Your task to perform on an android device: Open Youtube and go to "Your channel" Image 0: 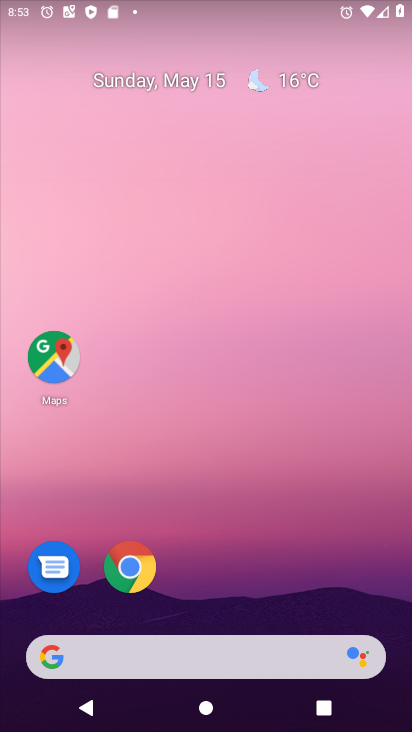
Step 0: drag from (206, 664) to (222, 363)
Your task to perform on an android device: Open Youtube and go to "Your channel" Image 1: 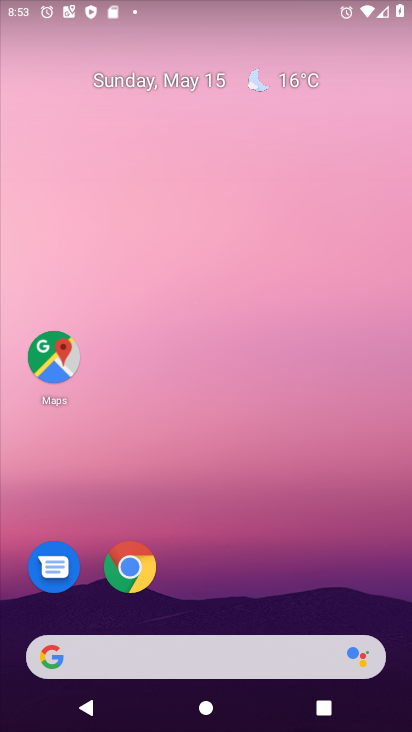
Step 1: drag from (277, 479) to (320, 272)
Your task to perform on an android device: Open Youtube and go to "Your channel" Image 2: 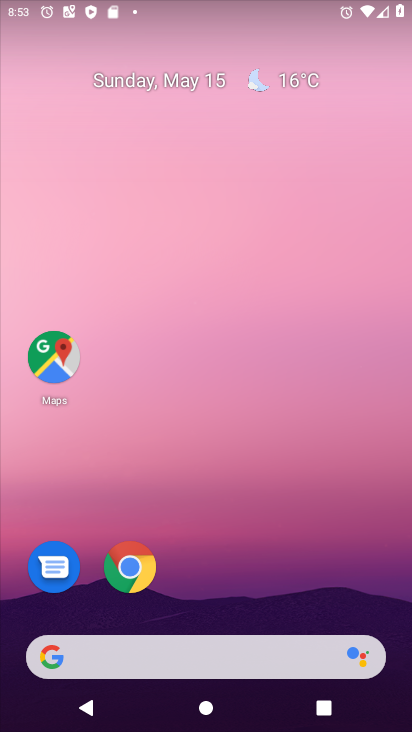
Step 2: drag from (192, 665) to (291, 110)
Your task to perform on an android device: Open Youtube and go to "Your channel" Image 3: 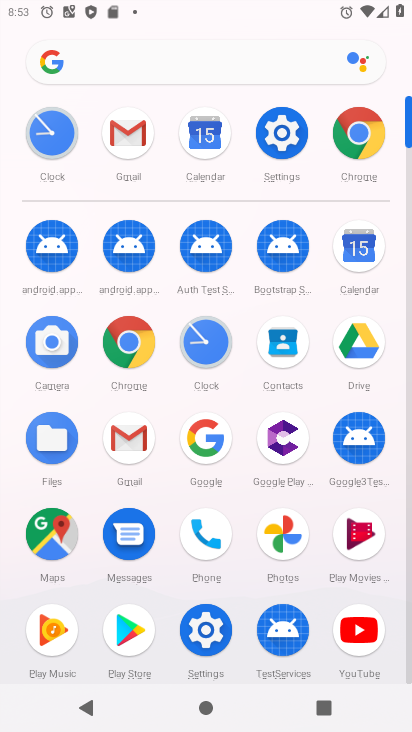
Step 3: click (363, 633)
Your task to perform on an android device: Open Youtube and go to "Your channel" Image 4: 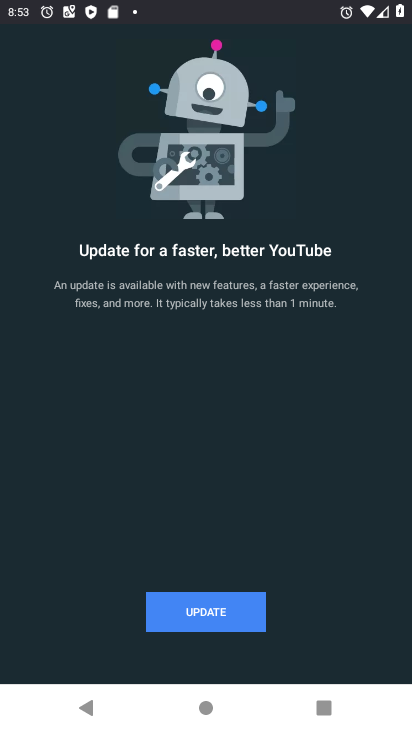
Step 4: click (200, 630)
Your task to perform on an android device: Open Youtube and go to "Your channel" Image 5: 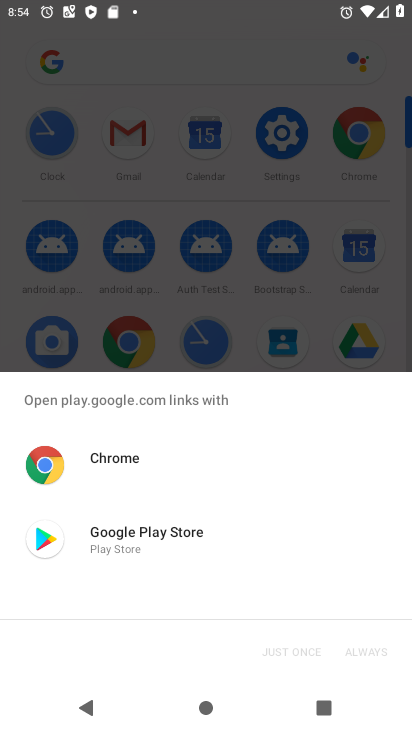
Step 5: click (149, 547)
Your task to perform on an android device: Open Youtube and go to "Your channel" Image 6: 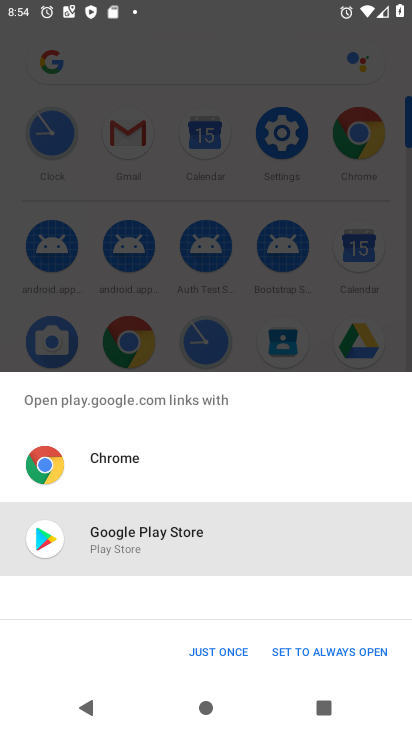
Step 6: click (224, 646)
Your task to perform on an android device: Open Youtube and go to "Your channel" Image 7: 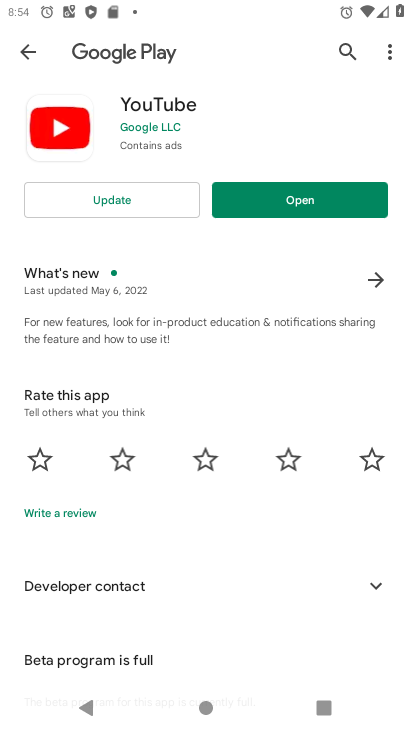
Step 7: click (318, 209)
Your task to perform on an android device: Open Youtube and go to "Your channel" Image 8: 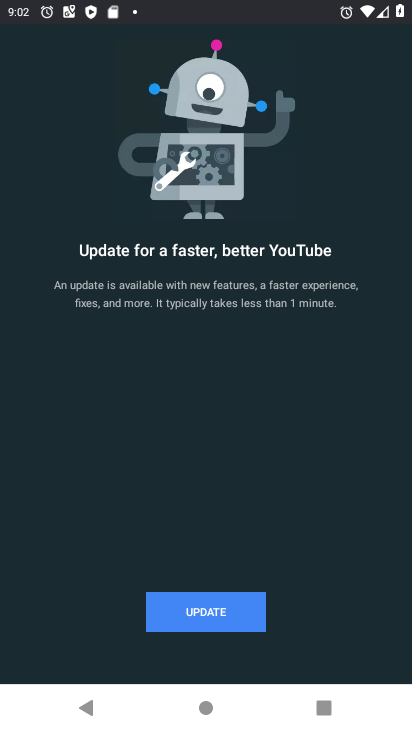
Step 8: click (187, 609)
Your task to perform on an android device: Open Youtube and go to "Your channel" Image 9: 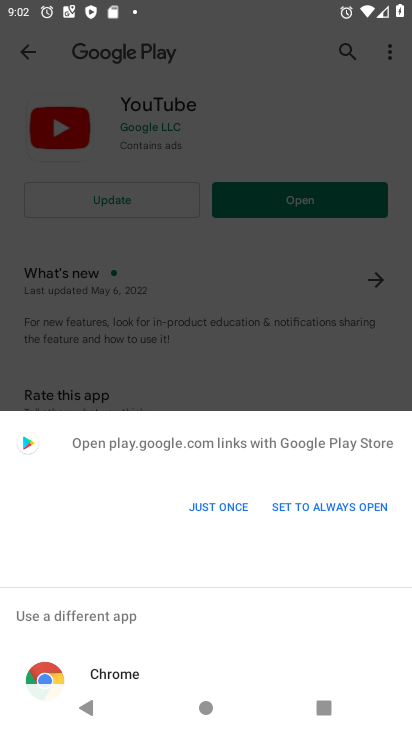
Step 9: click (219, 502)
Your task to perform on an android device: Open Youtube and go to "Your channel" Image 10: 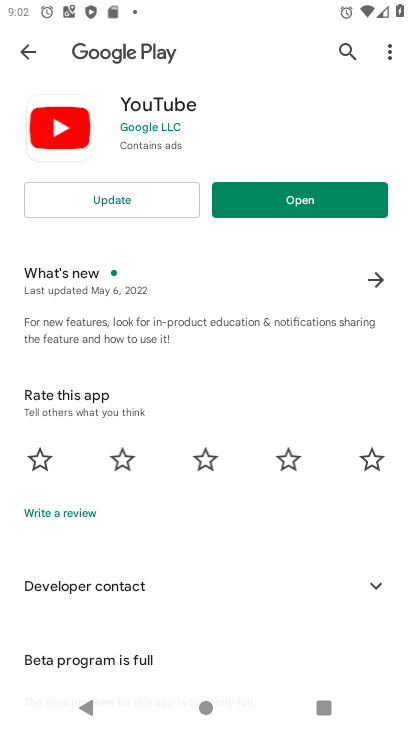
Step 10: click (112, 205)
Your task to perform on an android device: Open Youtube and go to "Your channel" Image 11: 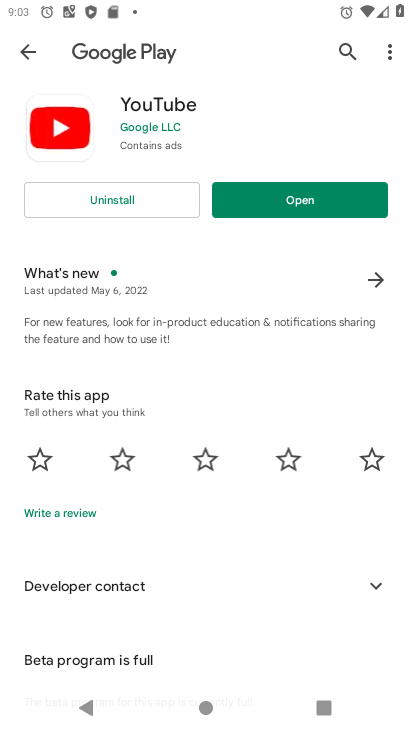
Step 11: click (319, 210)
Your task to perform on an android device: Open Youtube and go to "Your channel" Image 12: 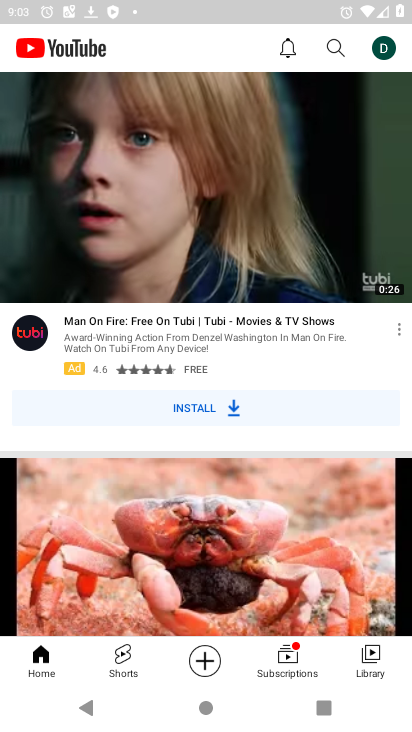
Step 12: click (377, 55)
Your task to perform on an android device: Open Youtube and go to "Your channel" Image 13: 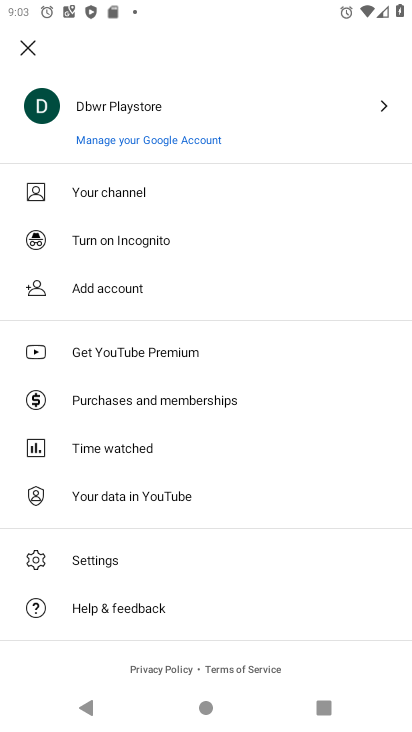
Step 13: click (93, 200)
Your task to perform on an android device: Open Youtube and go to "Your channel" Image 14: 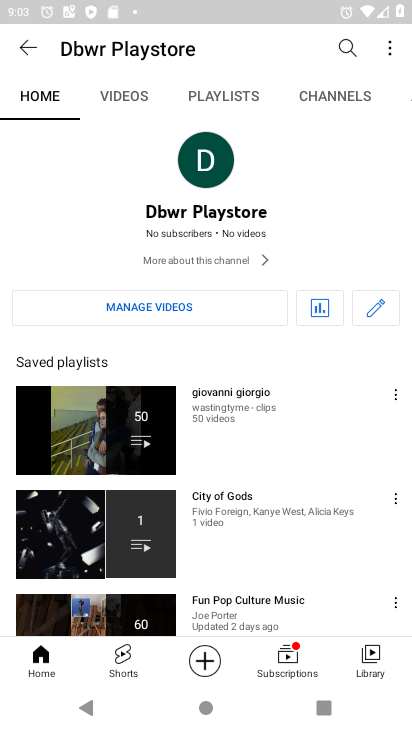
Step 14: task complete